Your task to perform on an android device: Check the news Image 0: 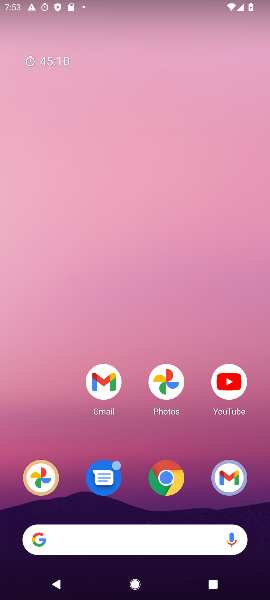
Step 0: drag from (109, 411) to (155, 124)
Your task to perform on an android device: Check the news Image 1: 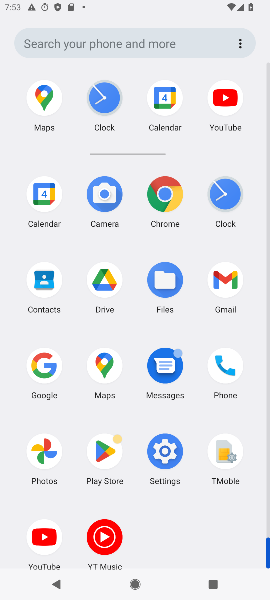
Step 1: click (160, 185)
Your task to perform on an android device: Check the news Image 2: 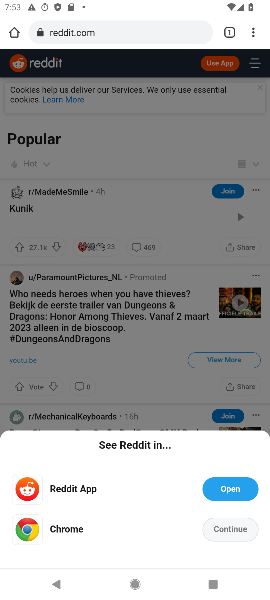
Step 2: click (71, 29)
Your task to perform on an android device: Check the news Image 3: 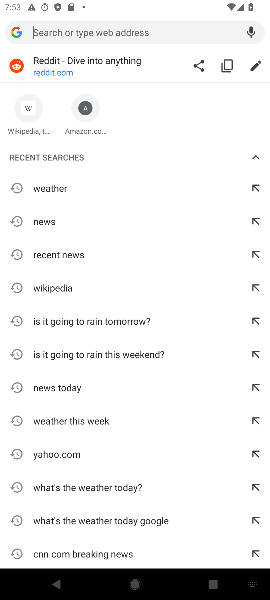
Step 3: type "news"
Your task to perform on an android device: Check the news Image 4: 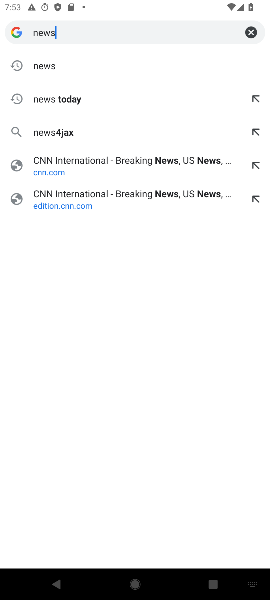
Step 4: click (69, 65)
Your task to perform on an android device: Check the news Image 5: 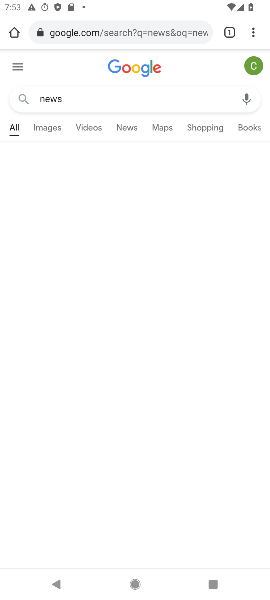
Step 5: drag from (154, 437) to (156, 248)
Your task to perform on an android device: Check the news Image 6: 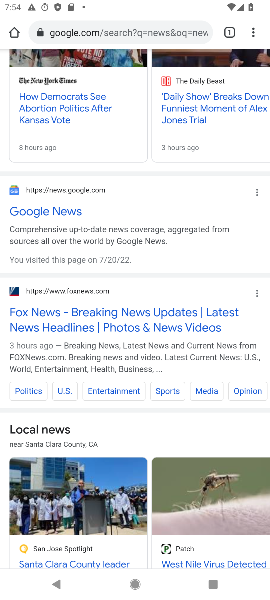
Step 6: drag from (121, 174) to (170, 441)
Your task to perform on an android device: Check the news Image 7: 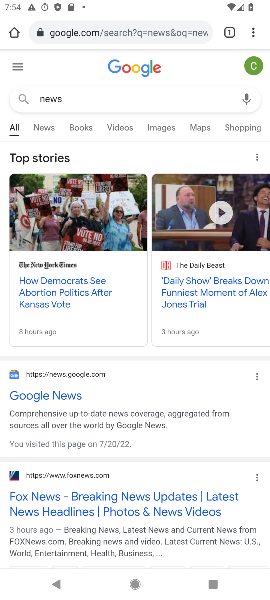
Step 7: click (33, 395)
Your task to perform on an android device: Check the news Image 8: 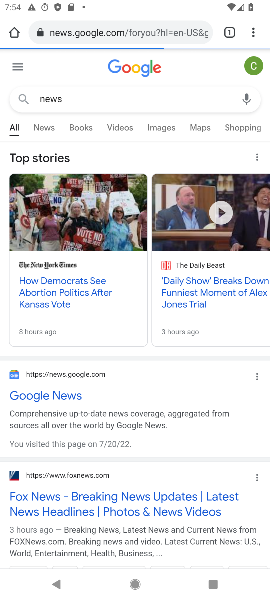
Step 8: task complete